Your task to perform on an android device: find snoozed emails in the gmail app Image 0: 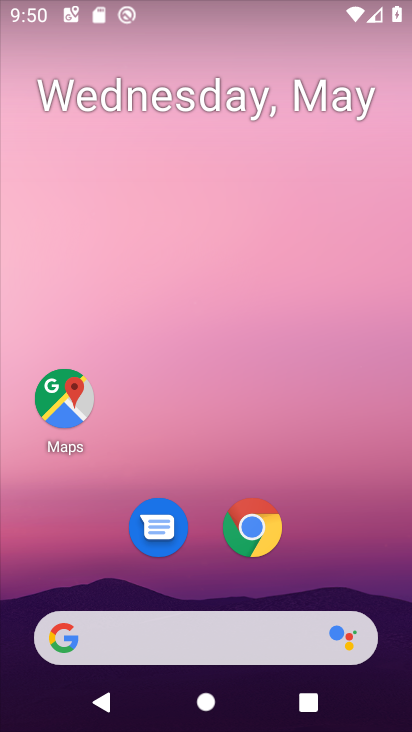
Step 0: drag from (199, 568) to (172, 172)
Your task to perform on an android device: find snoozed emails in the gmail app Image 1: 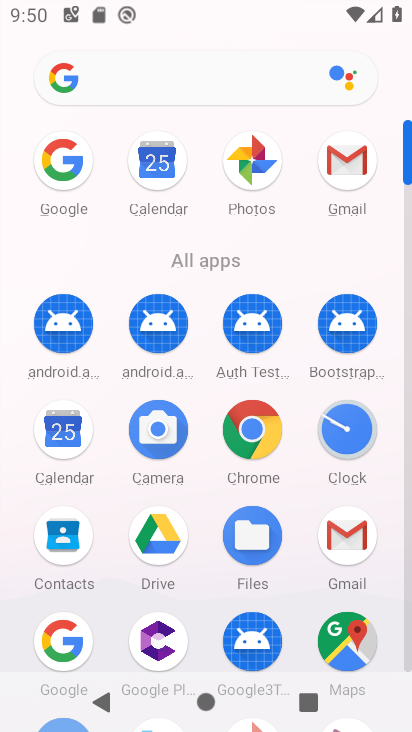
Step 1: click (348, 134)
Your task to perform on an android device: find snoozed emails in the gmail app Image 2: 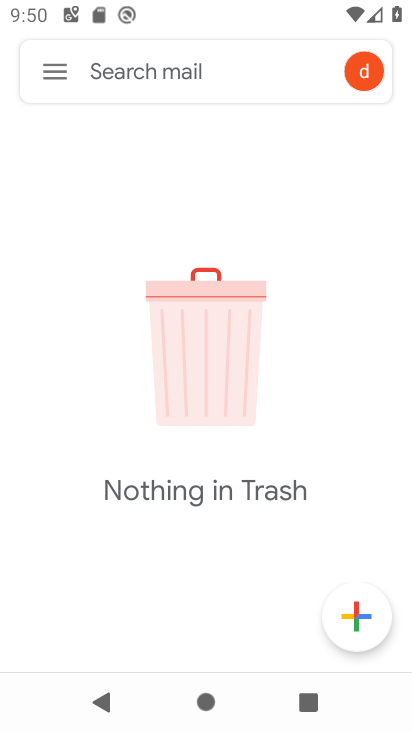
Step 2: click (62, 69)
Your task to perform on an android device: find snoozed emails in the gmail app Image 3: 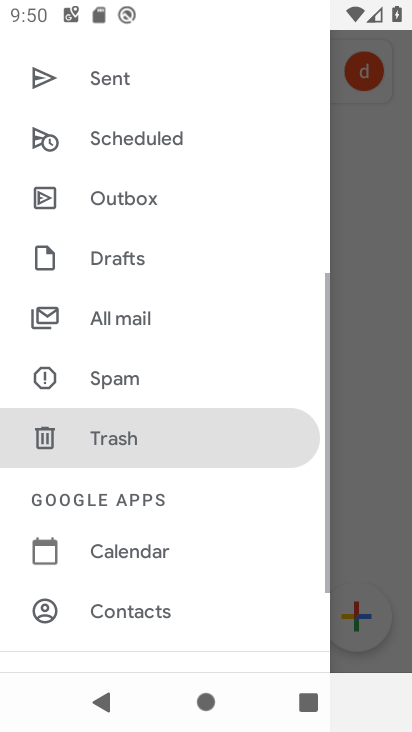
Step 3: click (140, 316)
Your task to perform on an android device: find snoozed emails in the gmail app Image 4: 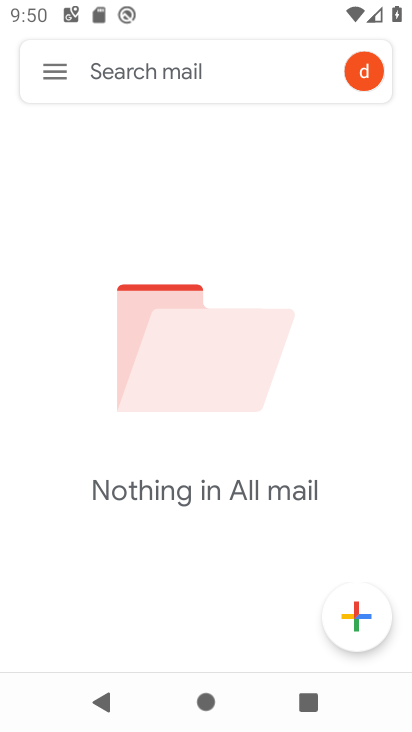
Step 4: task complete